Your task to perform on an android device: Open settings on Google Maps Image 0: 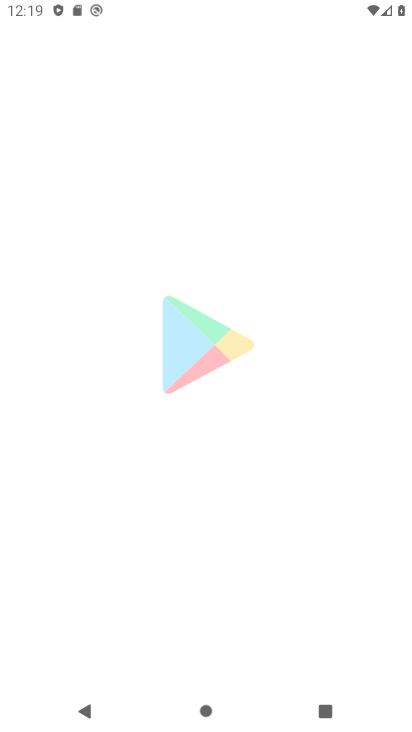
Step 0: press home button
Your task to perform on an android device: Open settings on Google Maps Image 1: 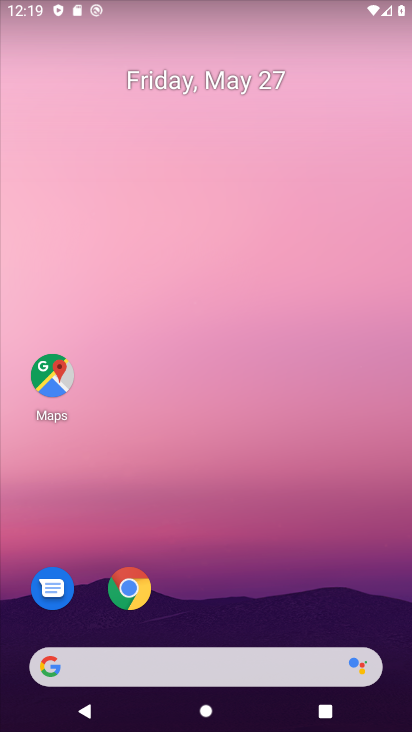
Step 1: click (149, 592)
Your task to perform on an android device: Open settings on Google Maps Image 2: 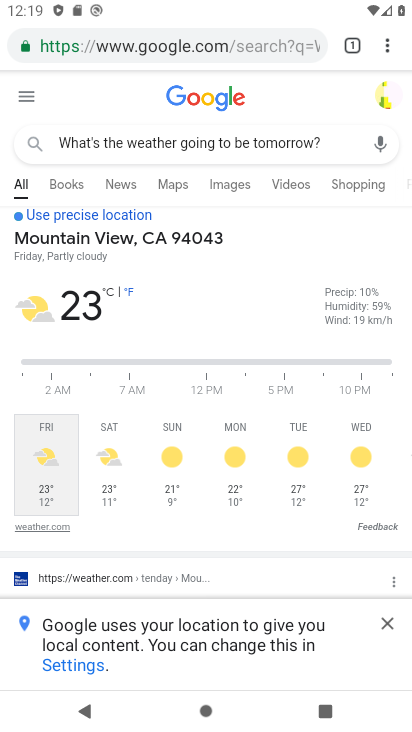
Step 2: task complete